Your task to perform on an android device: Open Reddit.com Image 0: 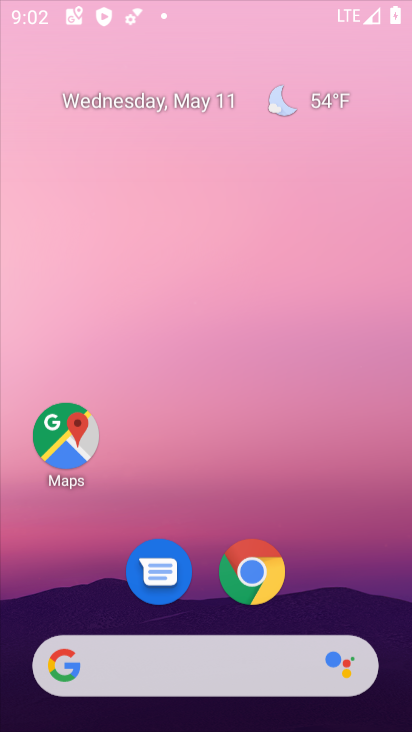
Step 0: drag from (277, 646) to (349, 0)
Your task to perform on an android device: Open Reddit.com Image 1: 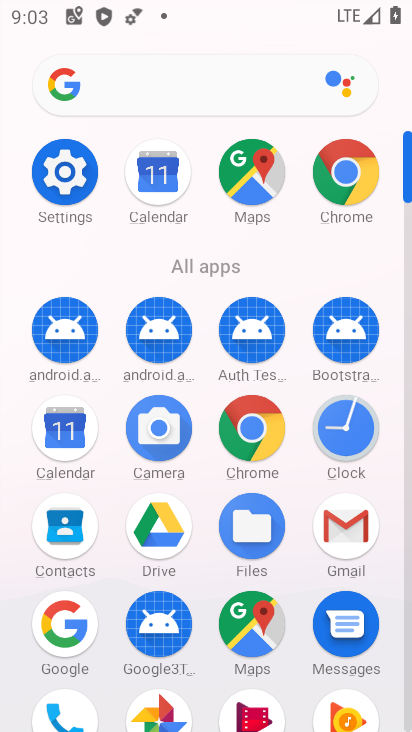
Step 1: click (263, 432)
Your task to perform on an android device: Open Reddit.com Image 2: 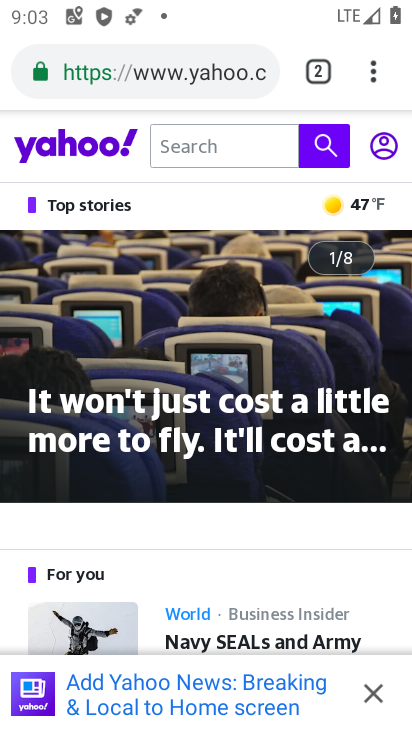
Step 2: click (166, 75)
Your task to perform on an android device: Open Reddit.com Image 3: 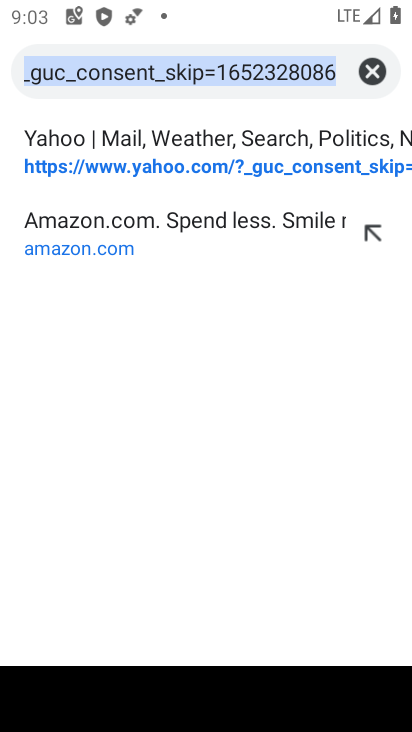
Step 3: click (373, 70)
Your task to perform on an android device: Open Reddit.com Image 4: 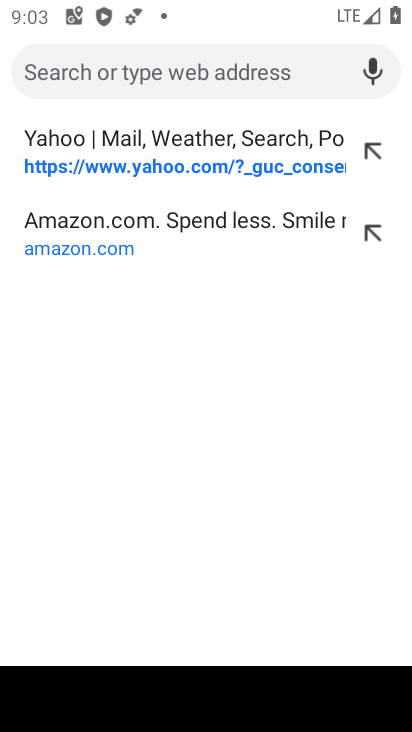
Step 4: type "reddit.com"
Your task to perform on an android device: Open Reddit.com Image 5: 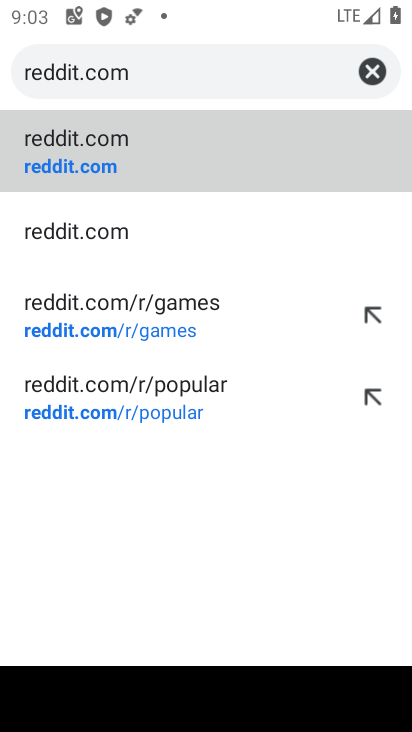
Step 5: click (231, 152)
Your task to perform on an android device: Open Reddit.com Image 6: 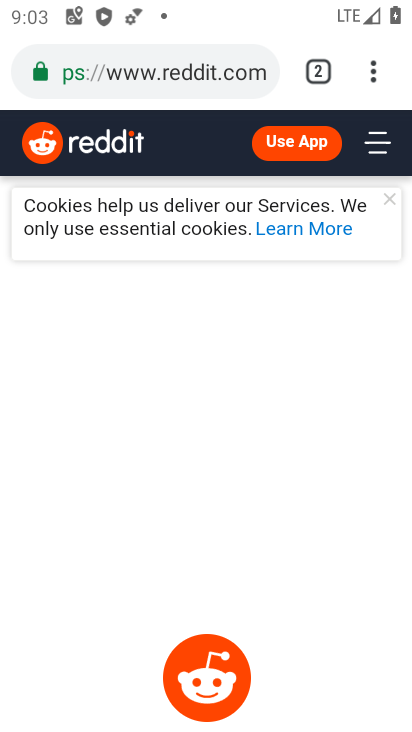
Step 6: task complete